Your task to perform on an android device: Open Chrome and go to settings Image 0: 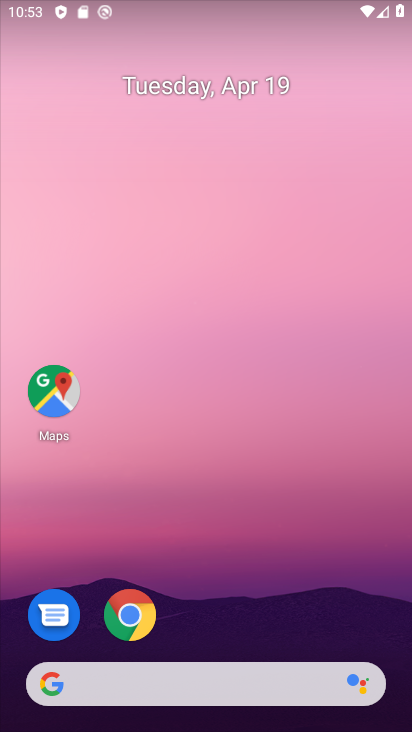
Step 0: click (132, 614)
Your task to perform on an android device: Open Chrome and go to settings Image 1: 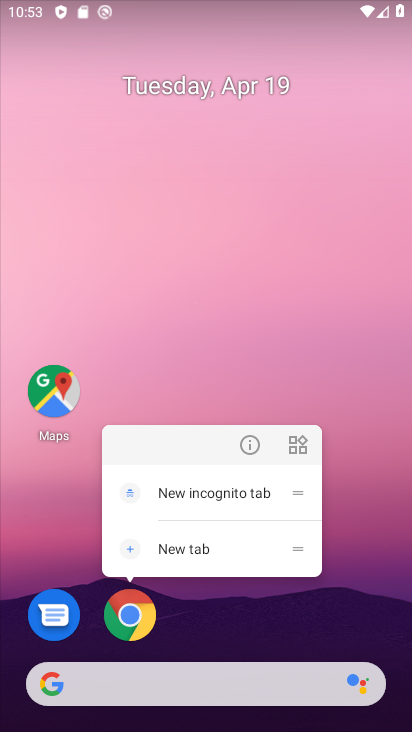
Step 1: click (128, 597)
Your task to perform on an android device: Open Chrome and go to settings Image 2: 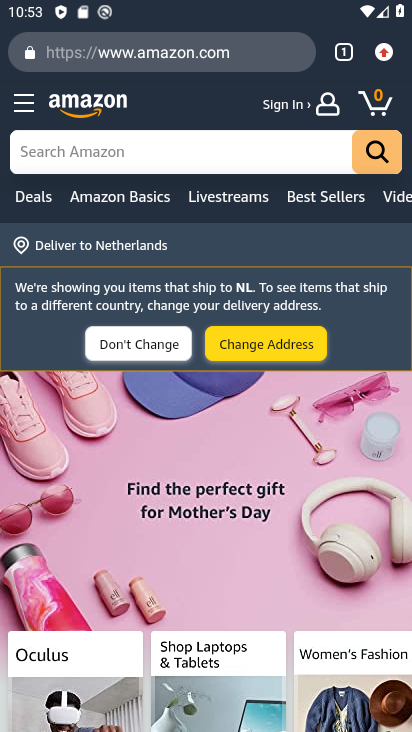
Step 2: task complete